Your task to perform on an android device: turn off data saver in the chrome app Image 0: 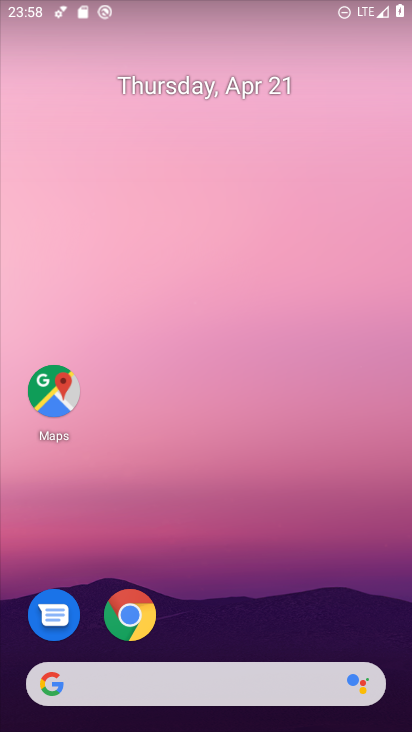
Step 0: click (127, 613)
Your task to perform on an android device: turn off data saver in the chrome app Image 1: 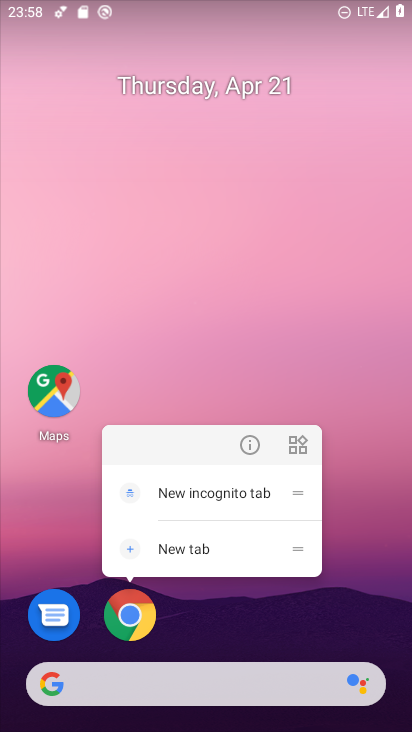
Step 1: click (221, 630)
Your task to perform on an android device: turn off data saver in the chrome app Image 2: 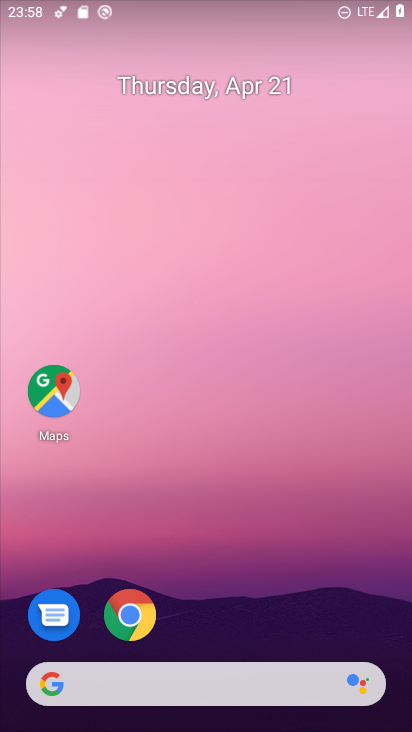
Step 2: drag from (277, 640) to (317, 132)
Your task to perform on an android device: turn off data saver in the chrome app Image 3: 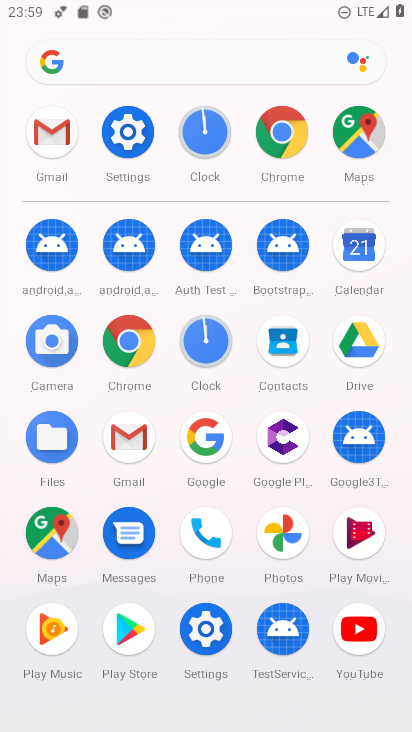
Step 3: click (131, 339)
Your task to perform on an android device: turn off data saver in the chrome app Image 4: 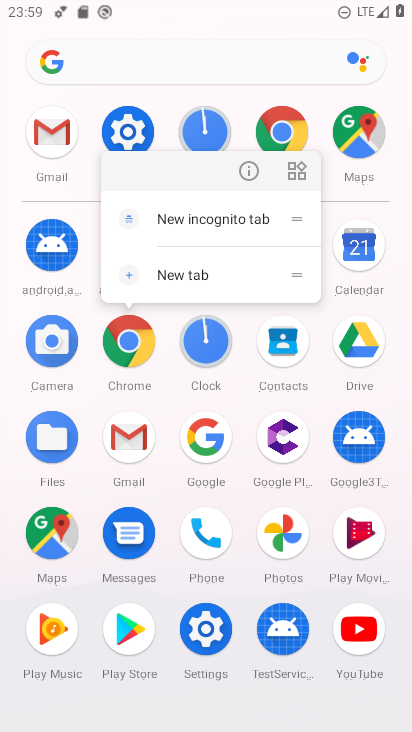
Step 4: click (131, 352)
Your task to perform on an android device: turn off data saver in the chrome app Image 5: 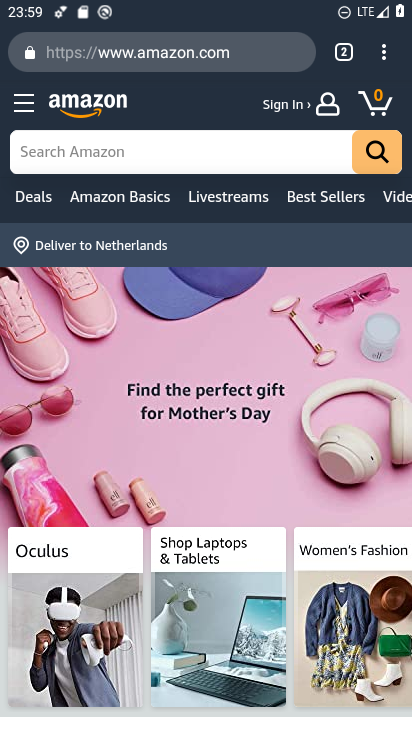
Step 5: click (386, 51)
Your task to perform on an android device: turn off data saver in the chrome app Image 6: 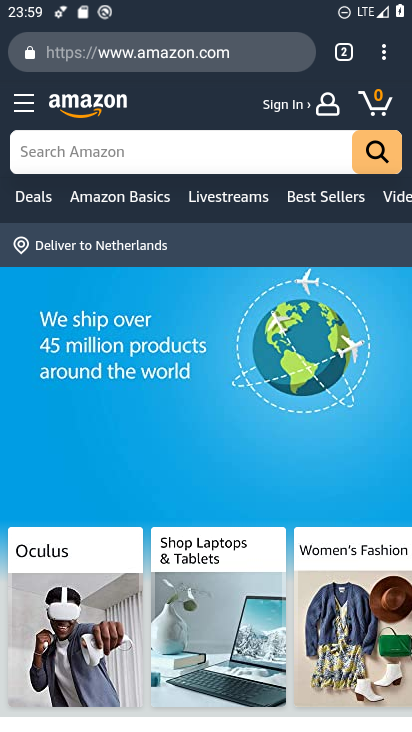
Step 6: click (378, 50)
Your task to perform on an android device: turn off data saver in the chrome app Image 7: 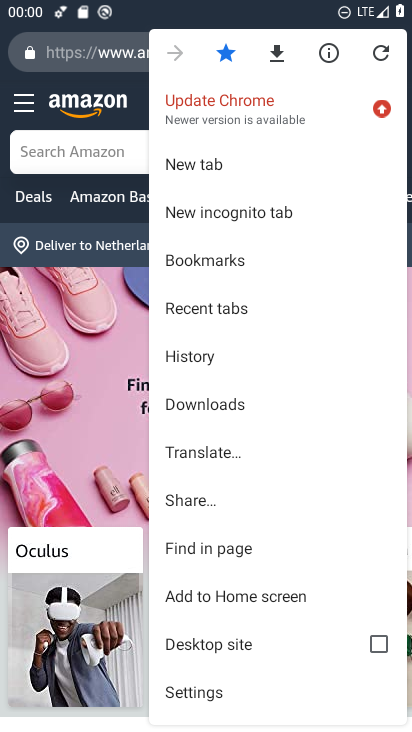
Step 7: click (236, 689)
Your task to perform on an android device: turn off data saver in the chrome app Image 8: 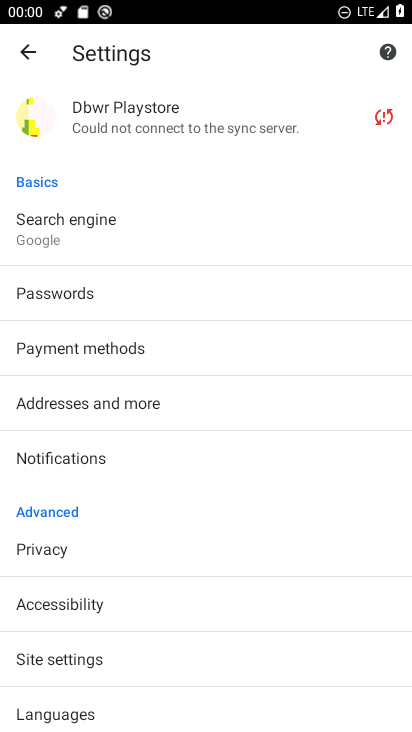
Step 8: drag from (163, 685) to (218, 198)
Your task to perform on an android device: turn off data saver in the chrome app Image 9: 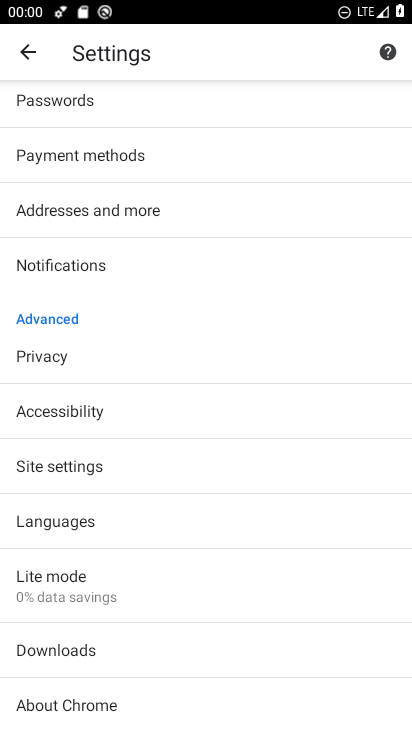
Step 9: click (106, 585)
Your task to perform on an android device: turn off data saver in the chrome app Image 10: 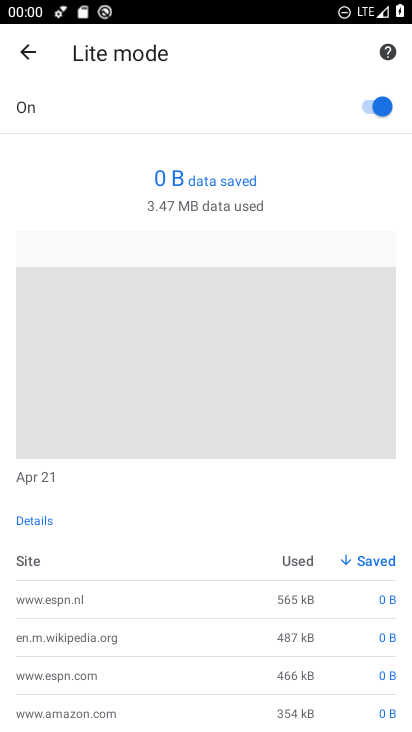
Step 10: click (366, 99)
Your task to perform on an android device: turn off data saver in the chrome app Image 11: 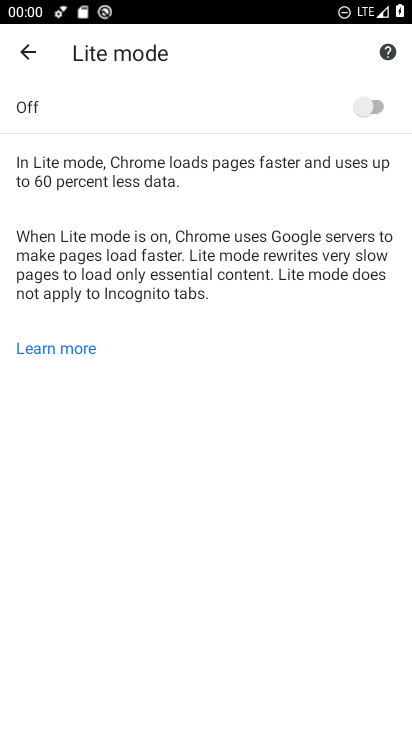
Step 11: task complete